Your task to perform on an android device: open wifi settings Image 0: 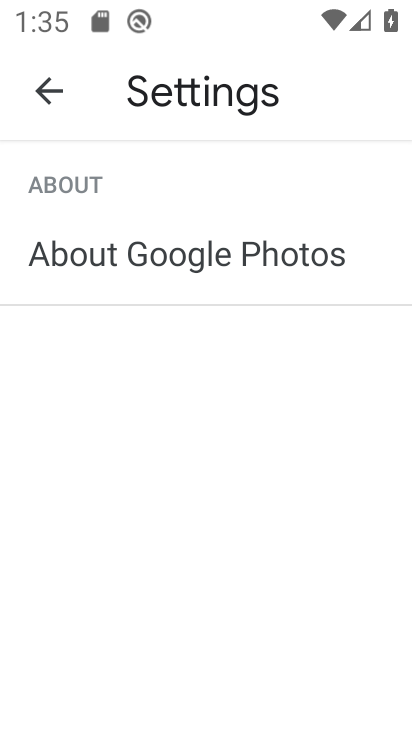
Step 0: press back button
Your task to perform on an android device: open wifi settings Image 1: 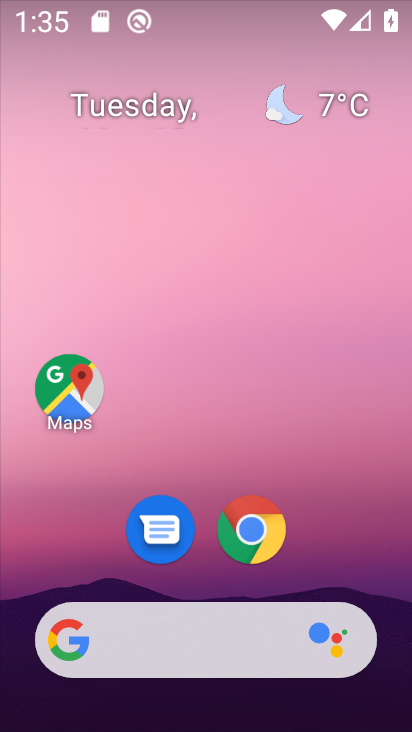
Step 1: drag from (349, 543) to (239, 60)
Your task to perform on an android device: open wifi settings Image 2: 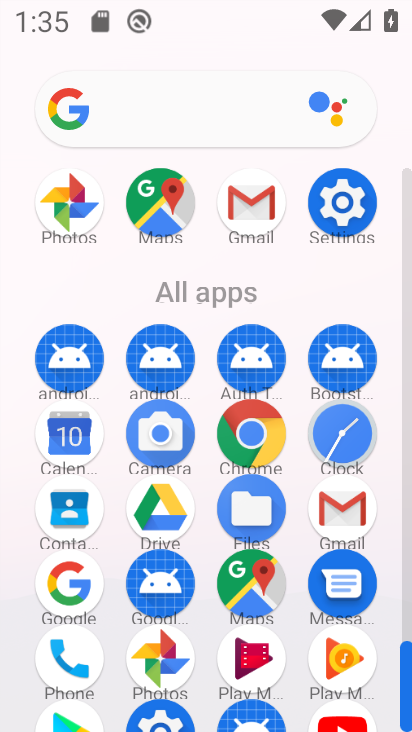
Step 2: click (343, 200)
Your task to perform on an android device: open wifi settings Image 3: 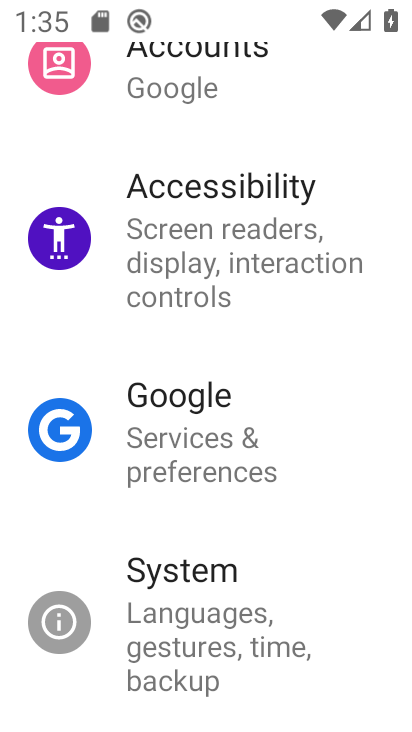
Step 3: drag from (298, 148) to (318, 426)
Your task to perform on an android device: open wifi settings Image 4: 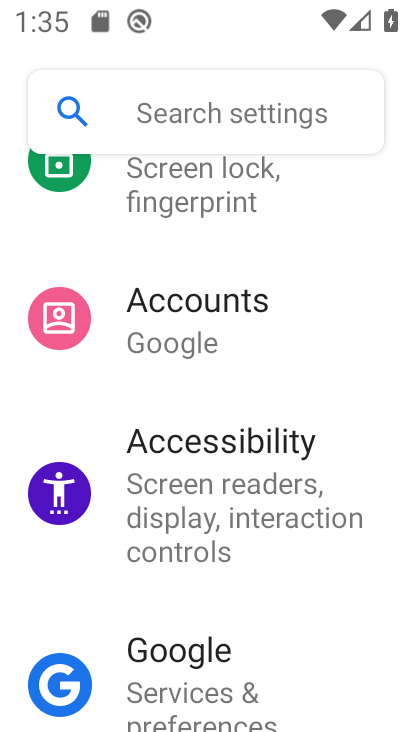
Step 4: drag from (243, 242) to (250, 525)
Your task to perform on an android device: open wifi settings Image 5: 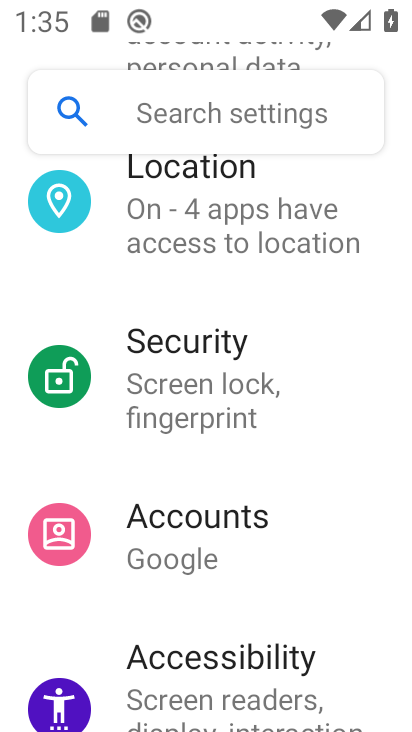
Step 5: drag from (214, 293) to (240, 474)
Your task to perform on an android device: open wifi settings Image 6: 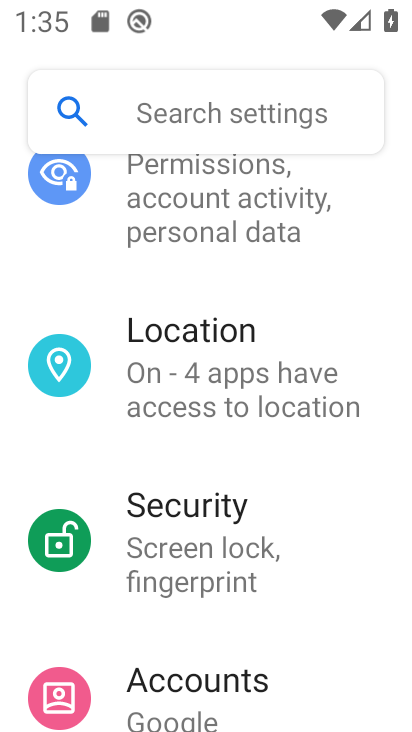
Step 6: drag from (196, 258) to (258, 478)
Your task to perform on an android device: open wifi settings Image 7: 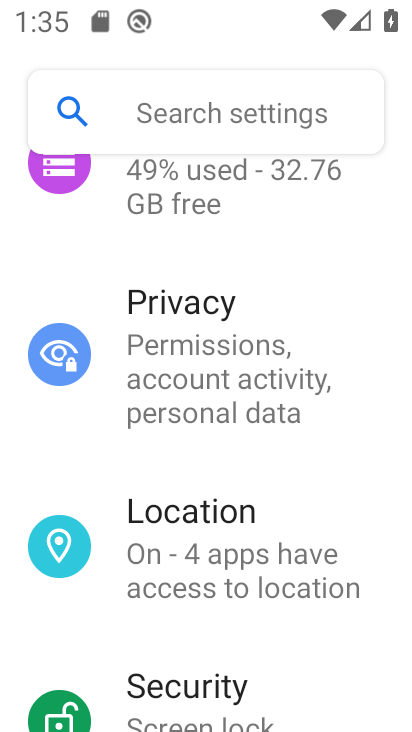
Step 7: drag from (223, 245) to (247, 500)
Your task to perform on an android device: open wifi settings Image 8: 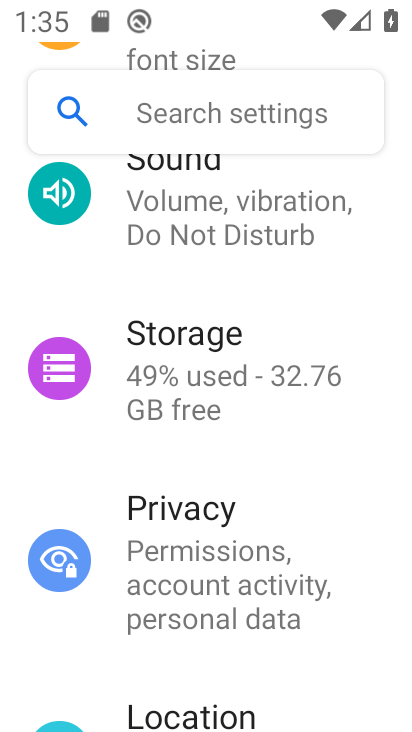
Step 8: drag from (207, 267) to (244, 500)
Your task to perform on an android device: open wifi settings Image 9: 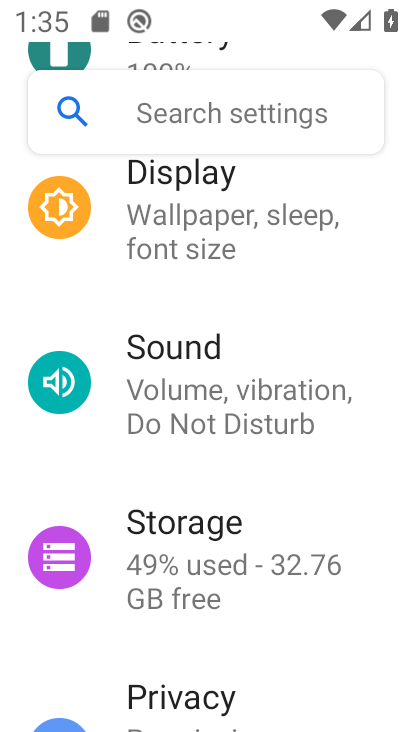
Step 9: drag from (225, 279) to (254, 470)
Your task to perform on an android device: open wifi settings Image 10: 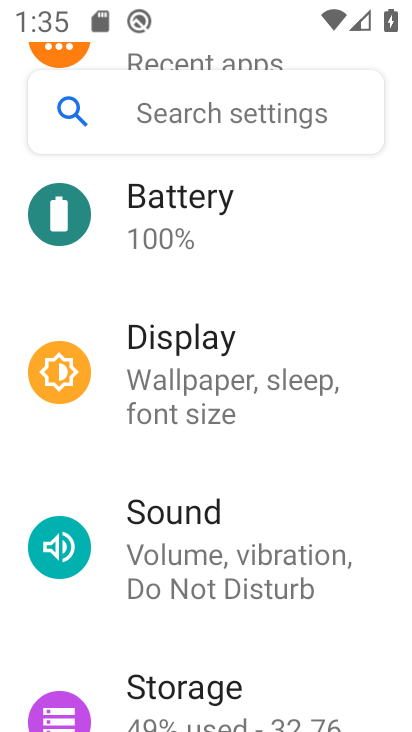
Step 10: drag from (192, 265) to (236, 478)
Your task to perform on an android device: open wifi settings Image 11: 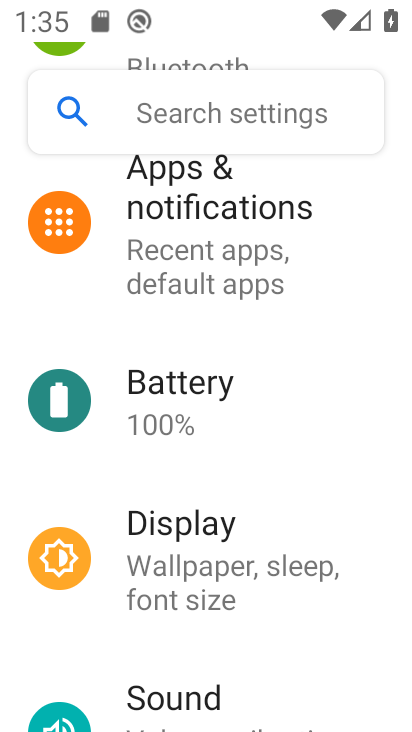
Step 11: drag from (202, 312) to (234, 476)
Your task to perform on an android device: open wifi settings Image 12: 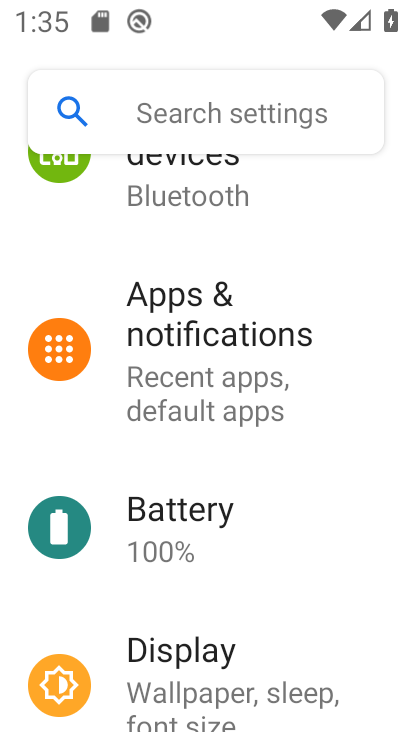
Step 12: drag from (185, 228) to (196, 400)
Your task to perform on an android device: open wifi settings Image 13: 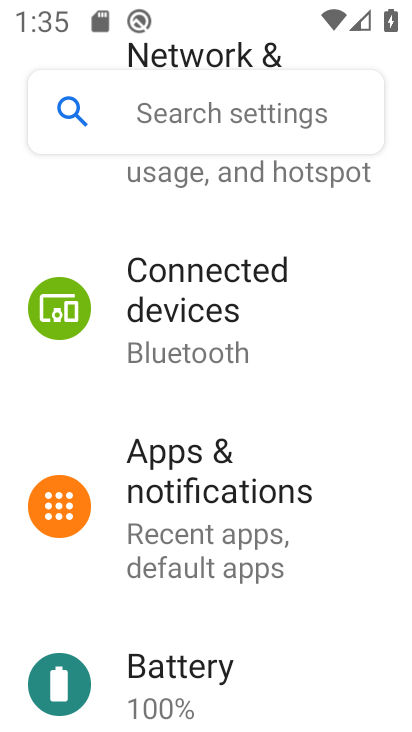
Step 13: drag from (180, 208) to (219, 414)
Your task to perform on an android device: open wifi settings Image 14: 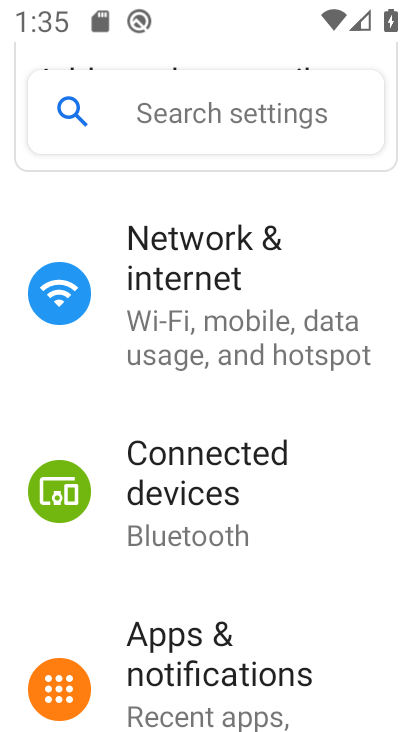
Step 14: click (193, 239)
Your task to perform on an android device: open wifi settings Image 15: 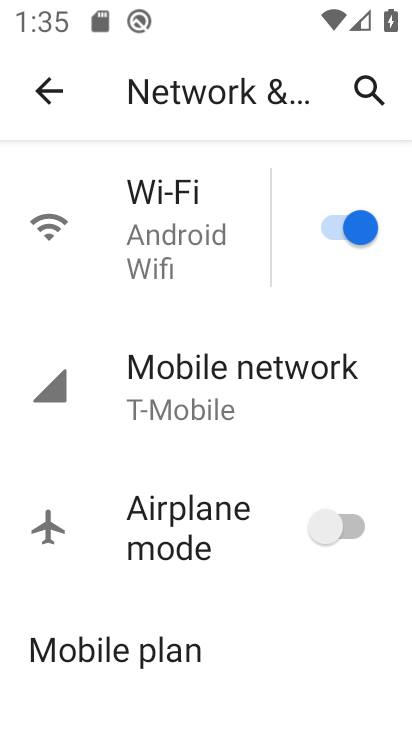
Step 15: click (172, 202)
Your task to perform on an android device: open wifi settings Image 16: 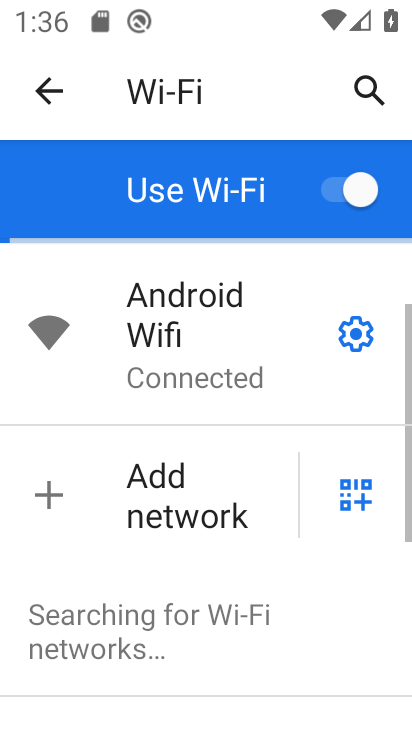
Step 16: click (362, 337)
Your task to perform on an android device: open wifi settings Image 17: 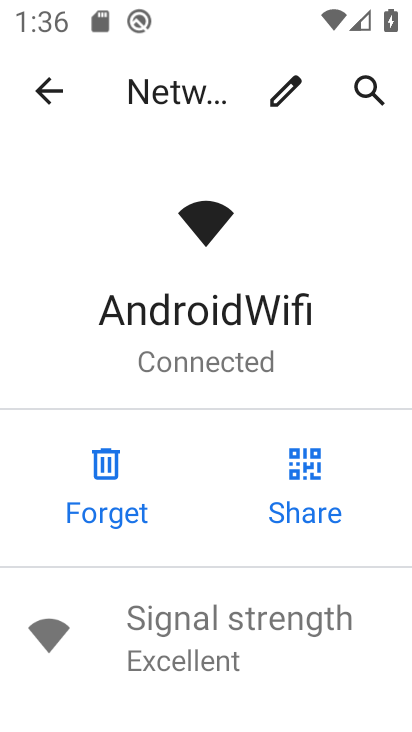
Step 17: task complete